Your task to perform on an android device: add a contact in the contacts app Image 0: 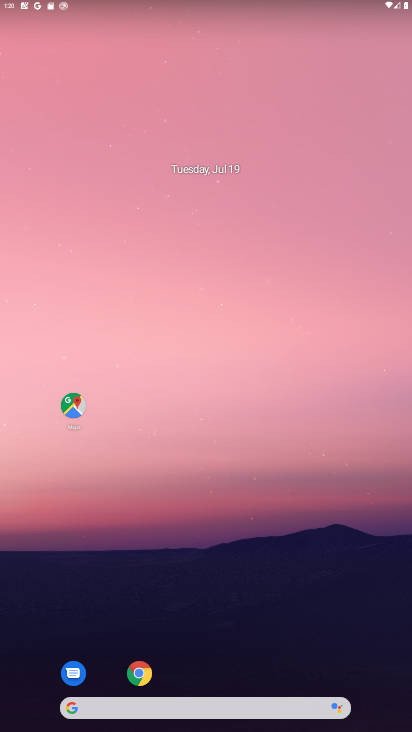
Step 0: drag from (205, 628) to (323, 91)
Your task to perform on an android device: add a contact in the contacts app Image 1: 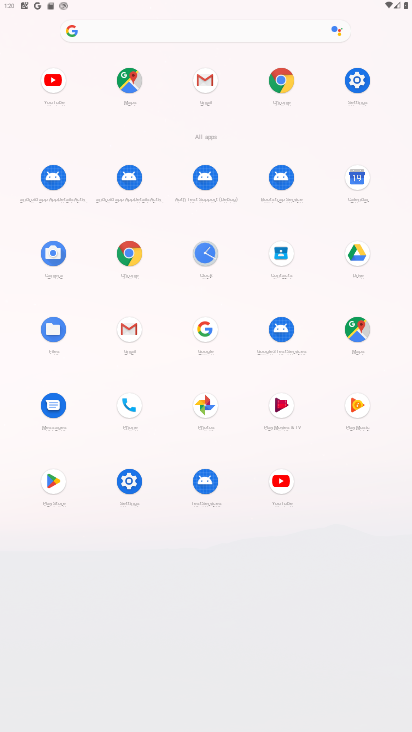
Step 1: click (285, 250)
Your task to perform on an android device: add a contact in the contacts app Image 2: 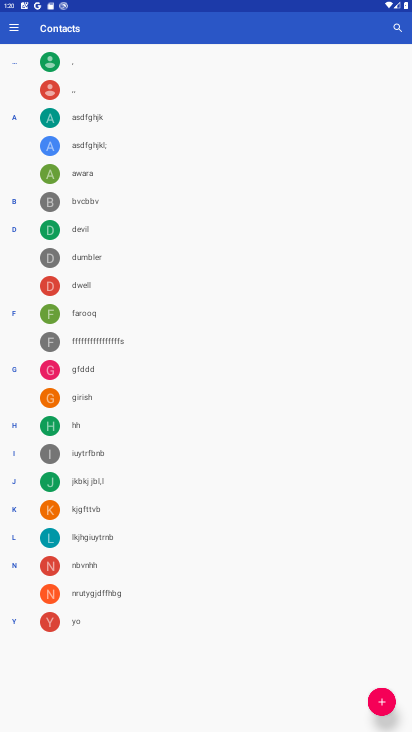
Step 2: click (382, 702)
Your task to perform on an android device: add a contact in the contacts app Image 3: 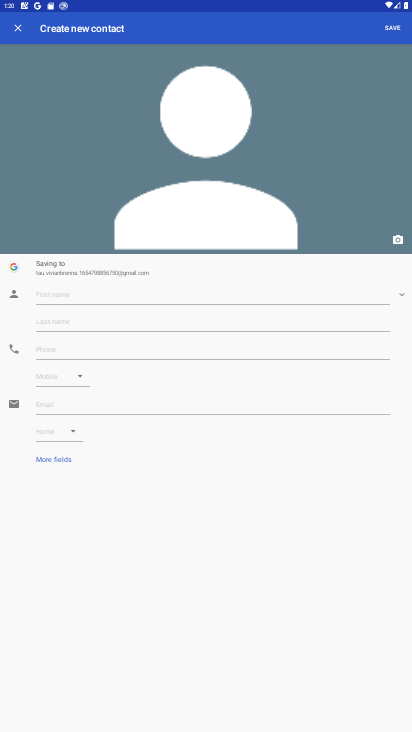
Step 3: click (187, 293)
Your task to perform on an android device: add a contact in the contacts app Image 4: 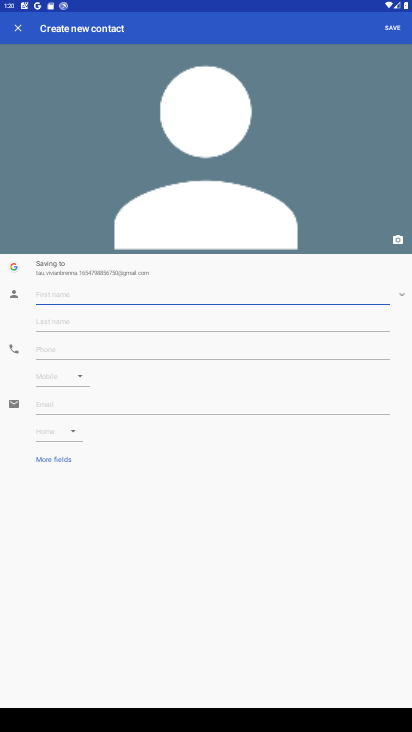
Step 4: type "hgcj"
Your task to perform on an android device: add a contact in the contacts app Image 5: 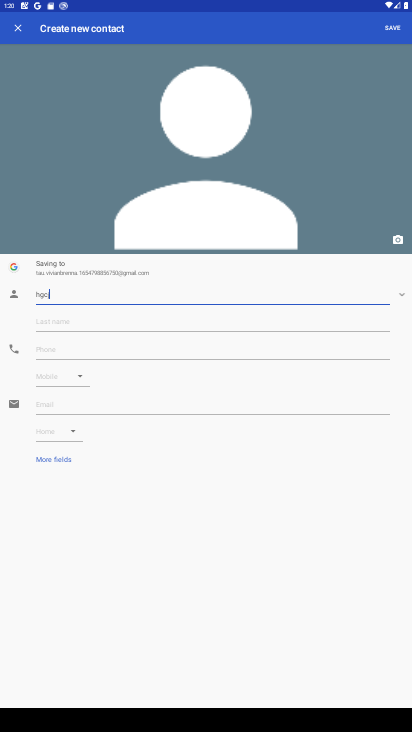
Step 5: click (47, 344)
Your task to perform on an android device: add a contact in the contacts app Image 6: 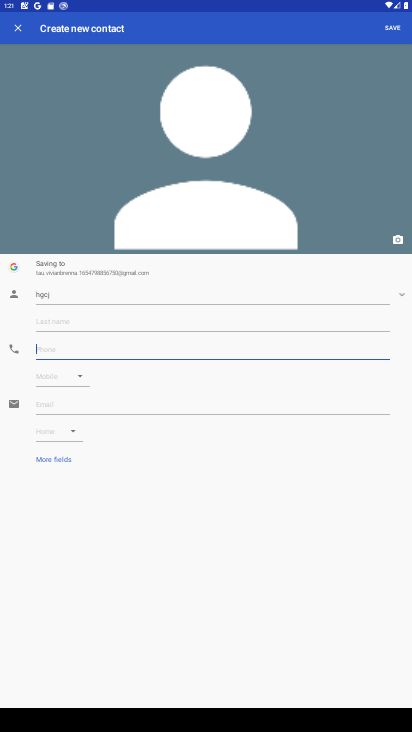
Step 6: type "897"
Your task to perform on an android device: add a contact in the contacts app Image 7: 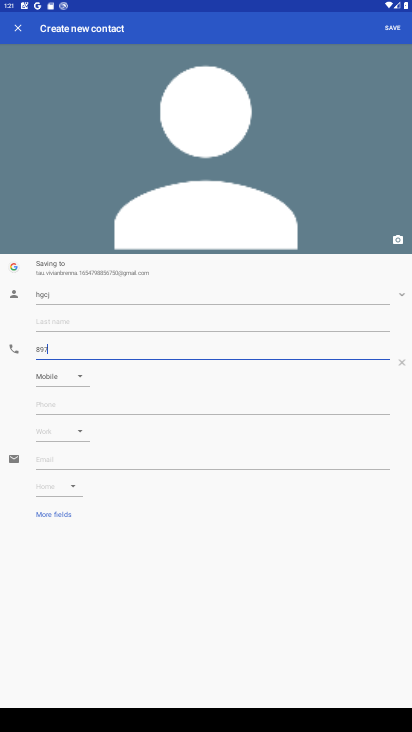
Step 7: click (398, 27)
Your task to perform on an android device: add a contact in the contacts app Image 8: 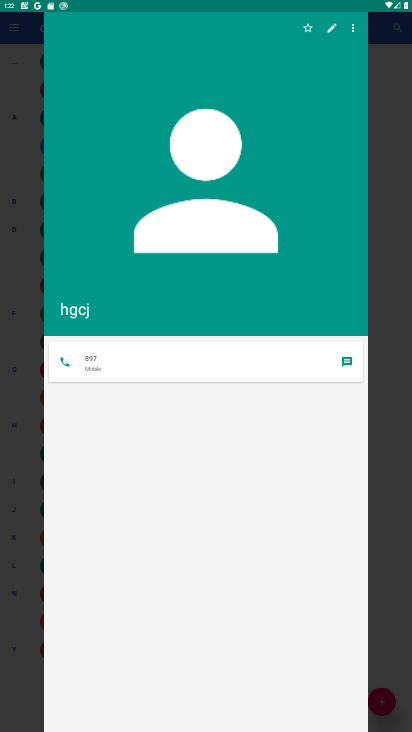
Step 8: task complete